Your task to perform on an android device: Show me the alarms in the clock app Image 0: 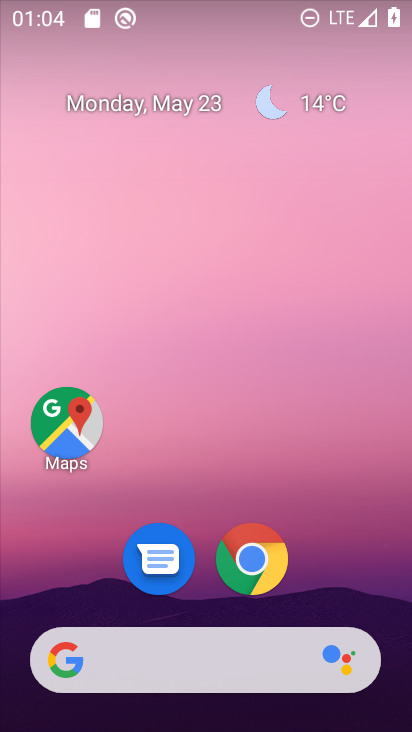
Step 0: drag from (355, 604) to (366, 25)
Your task to perform on an android device: Show me the alarms in the clock app Image 1: 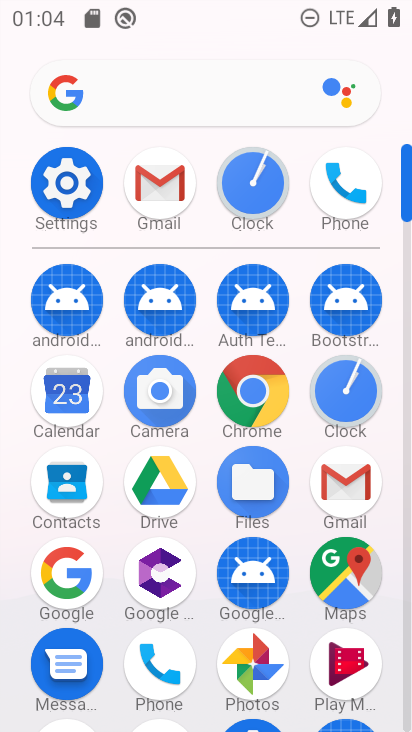
Step 1: click (247, 189)
Your task to perform on an android device: Show me the alarms in the clock app Image 2: 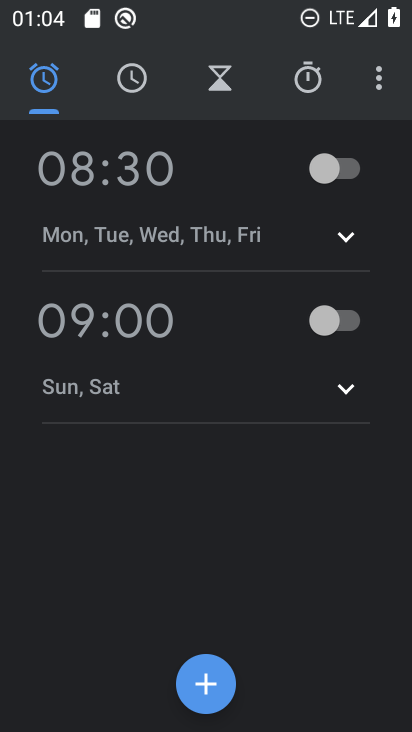
Step 2: task complete